Your task to perform on an android device: Open display settings Image 0: 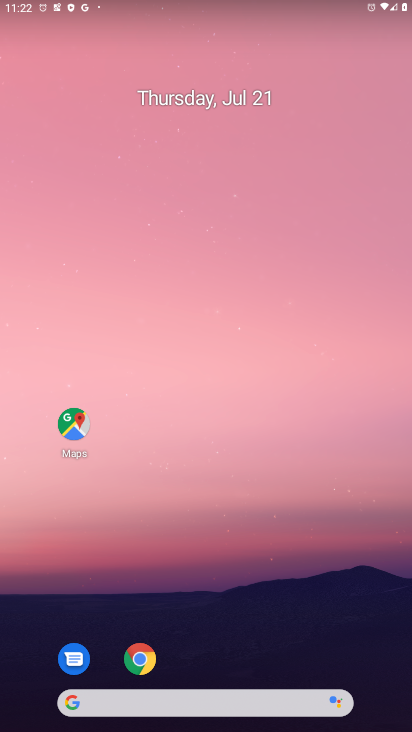
Step 0: drag from (196, 700) to (158, 69)
Your task to perform on an android device: Open display settings Image 1: 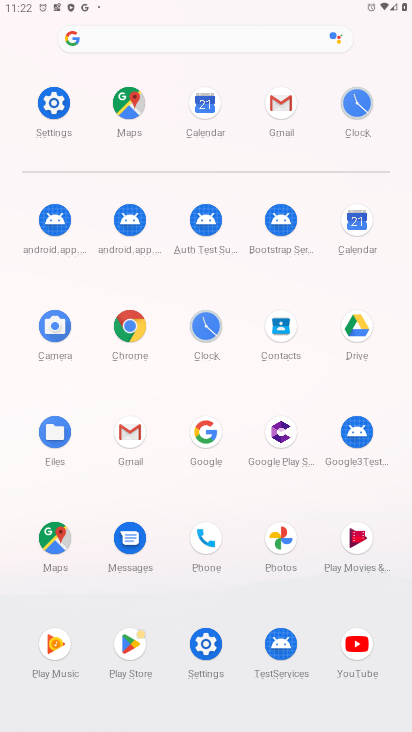
Step 1: click (55, 105)
Your task to perform on an android device: Open display settings Image 2: 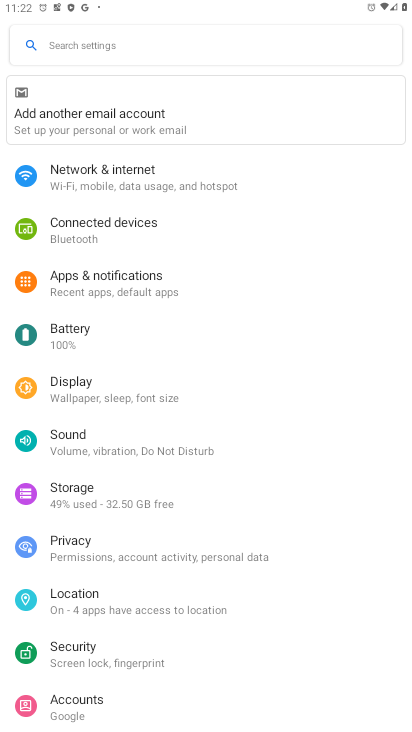
Step 2: drag from (115, 364) to (143, 265)
Your task to perform on an android device: Open display settings Image 3: 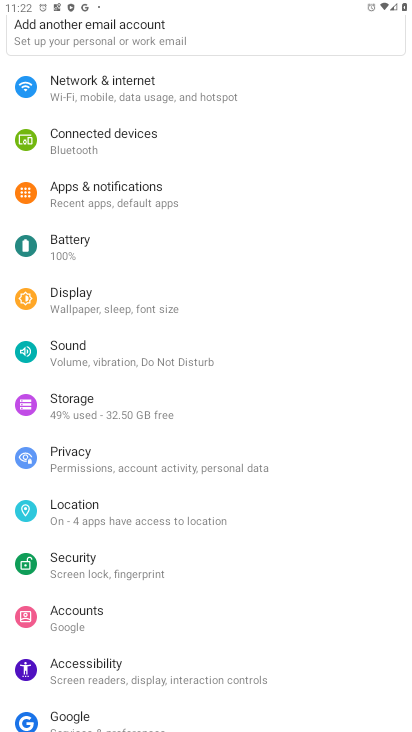
Step 3: click (97, 308)
Your task to perform on an android device: Open display settings Image 4: 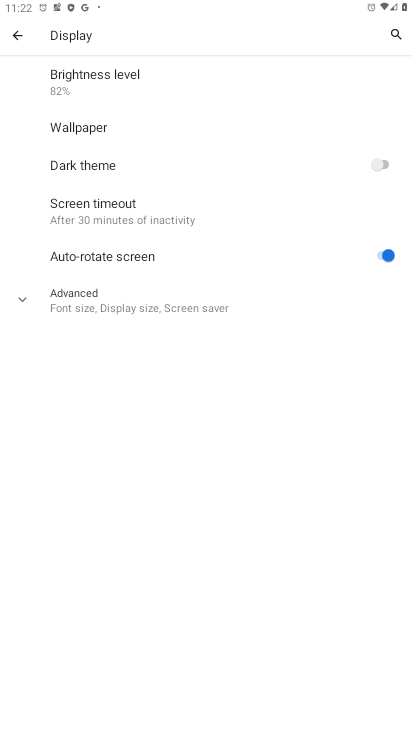
Step 4: task complete